Your task to perform on an android device: turn off improve location accuracy Image 0: 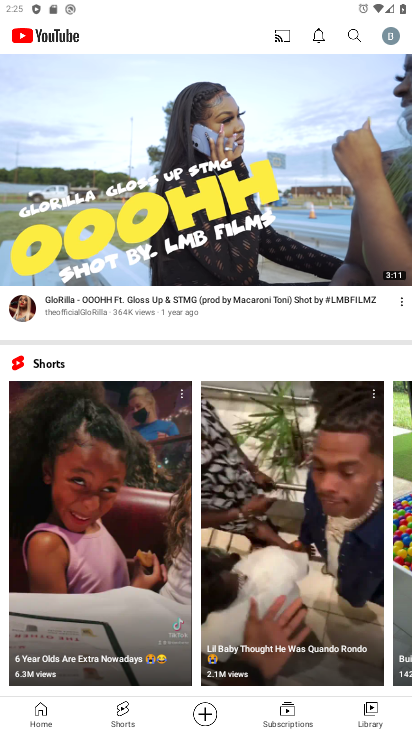
Step 0: press home button
Your task to perform on an android device: turn off improve location accuracy Image 1: 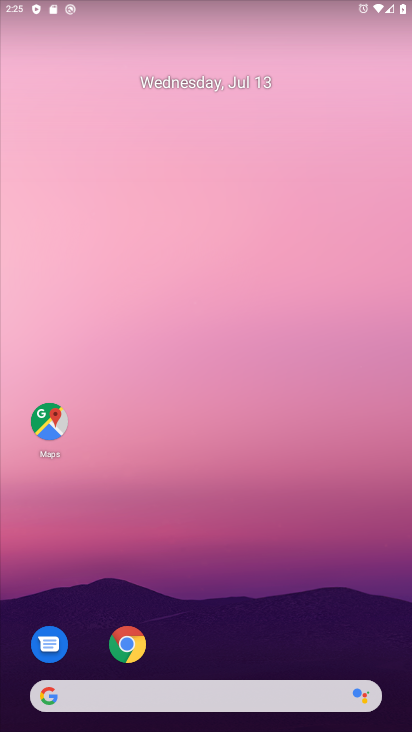
Step 1: drag from (200, 698) to (234, 81)
Your task to perform on an android device: turn off improve location accuracy Image 2: 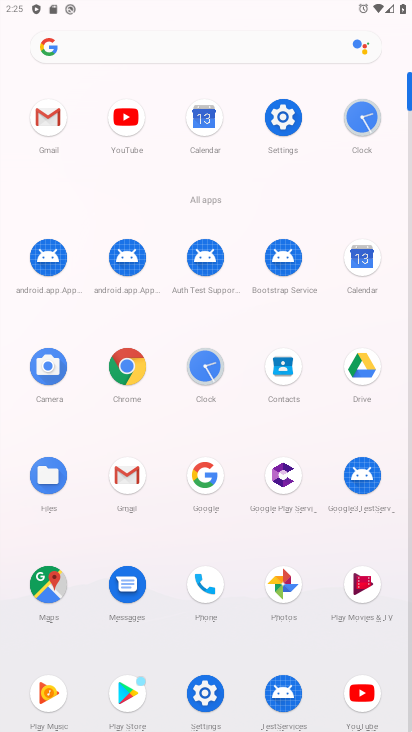
Step 2: click (283, 135)
Your task to perform on an android device: turn off improve location accuracy Image 3: 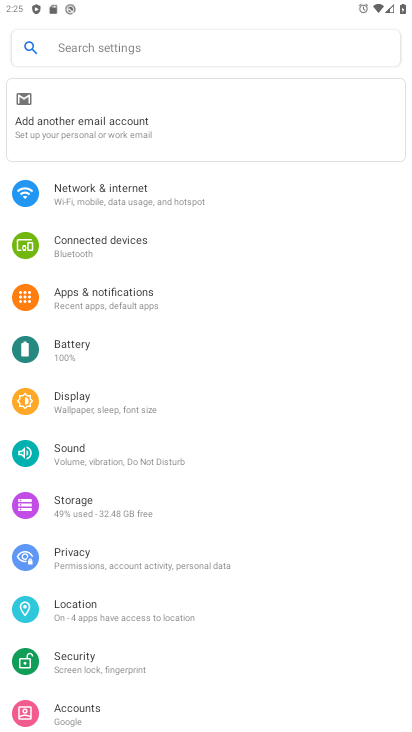
Step 3: click (99, 615)
Your task to perform on an android device: turn off improve location accuracy Image 4: 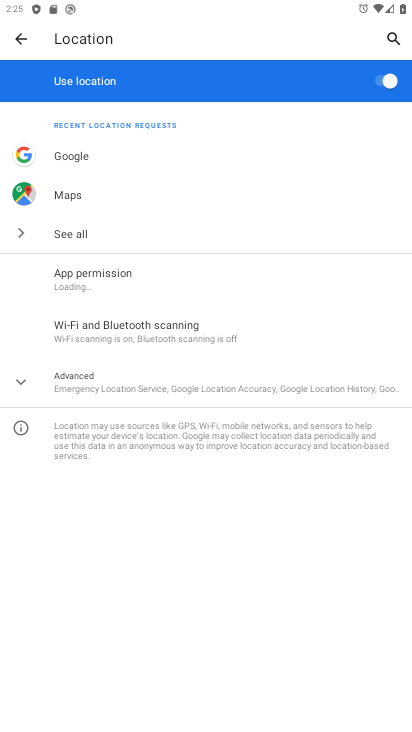
Step 4: click (253, 389)
Your task to perform on an android device: turn off improve location accuracy Image 5: 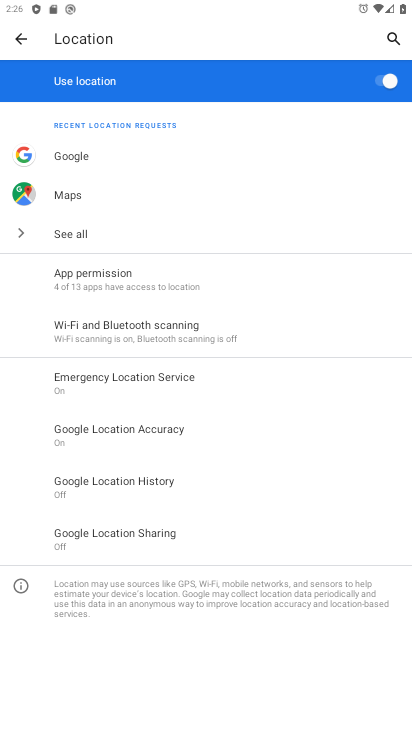
Step 5: click (198, 426)
Your task to perform on an android device: turn off improve location accuracy Image 6: 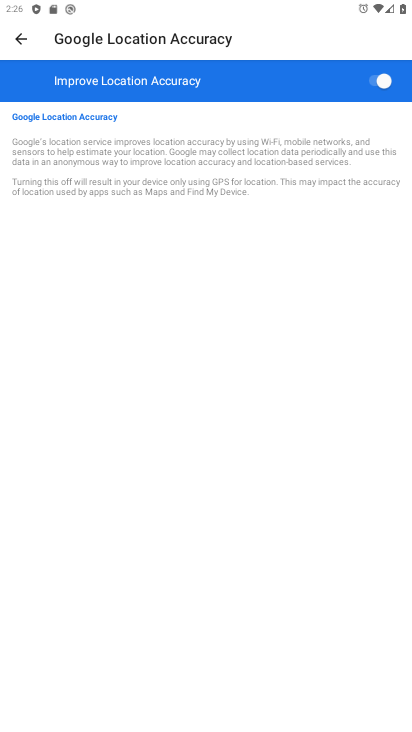
Step 6: click (383, 86)
Your task to perform on an android device: turn off improve location accuracy Image 7: 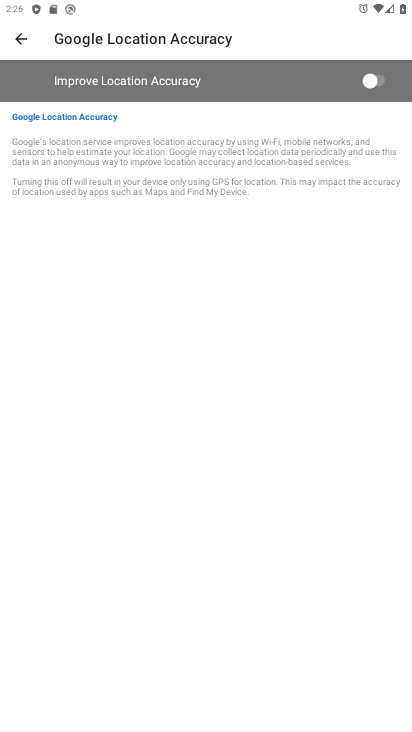
Step 7: task complete